Your task to perform on an android device: check storage Image 0: 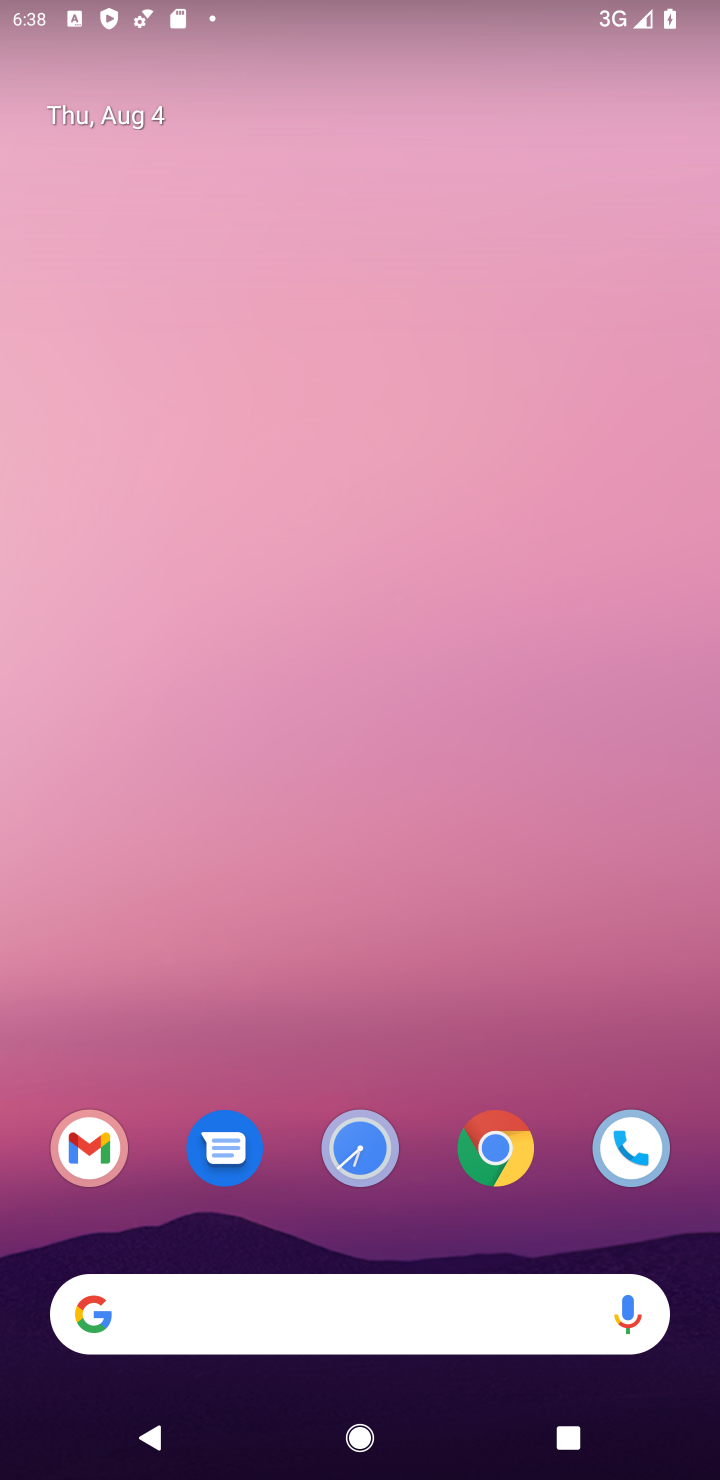
Step 0: drag from (573, 1229) to (538, 320)
Your task to perform on an android device: check storage Image 1: 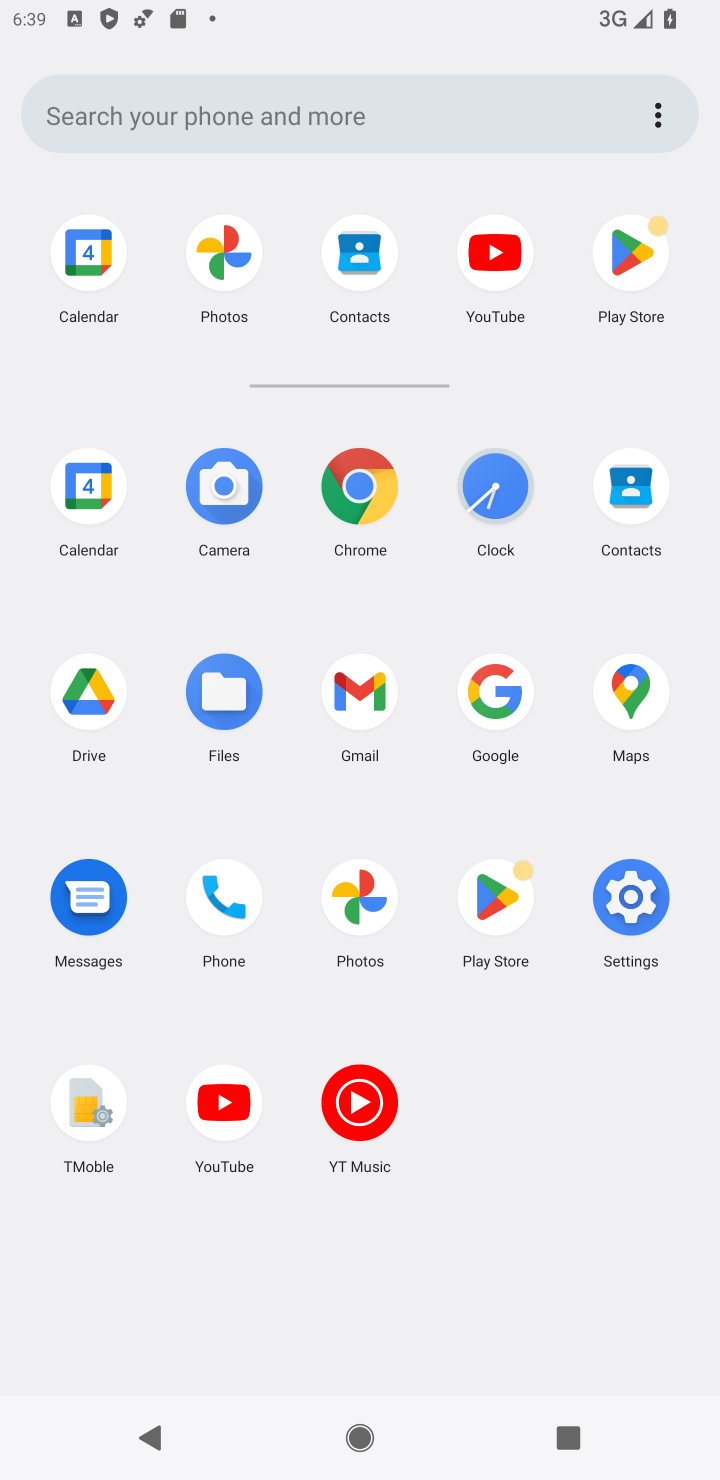
Step 1: click (630, 903)
Your task to perform on an android device: check storage Image 2: 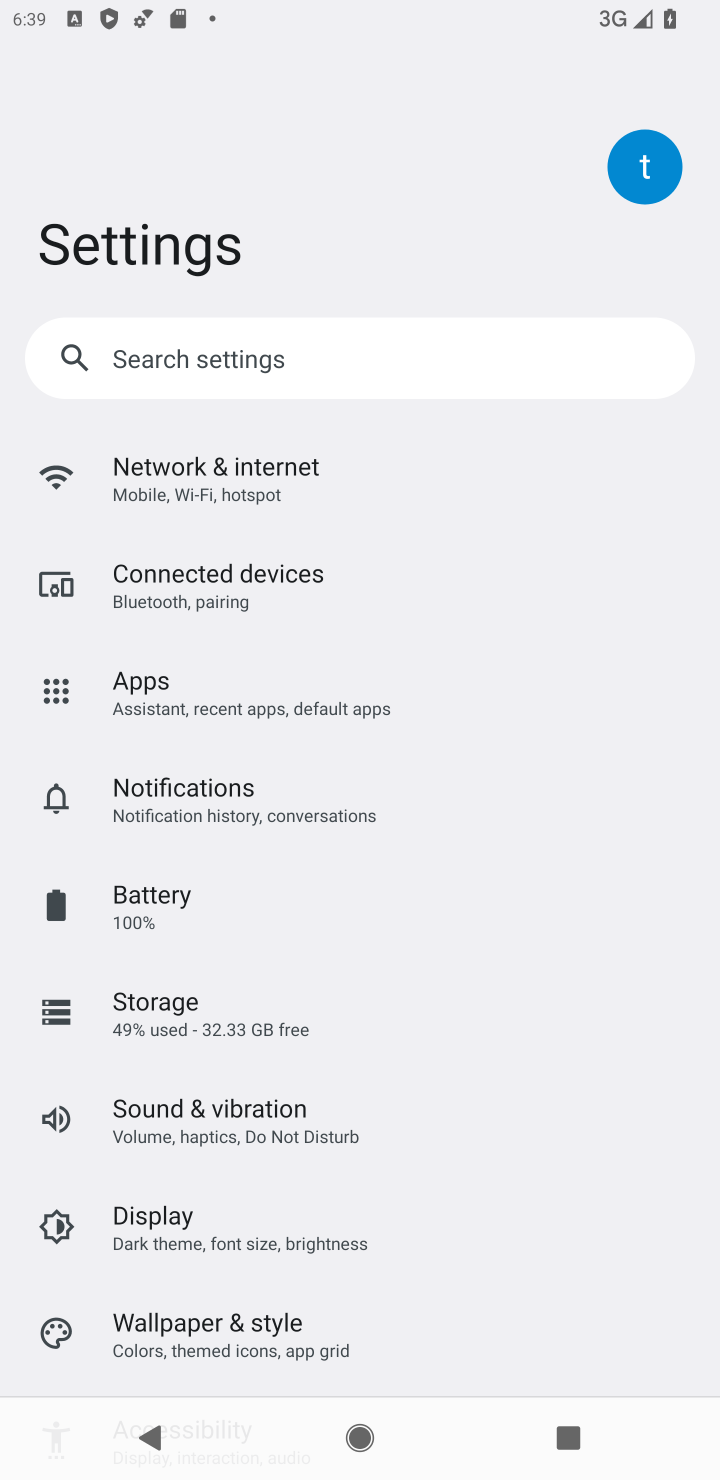
Step 2: click (120, 1013)
Your task to perform on an android device: check storage Image 3: 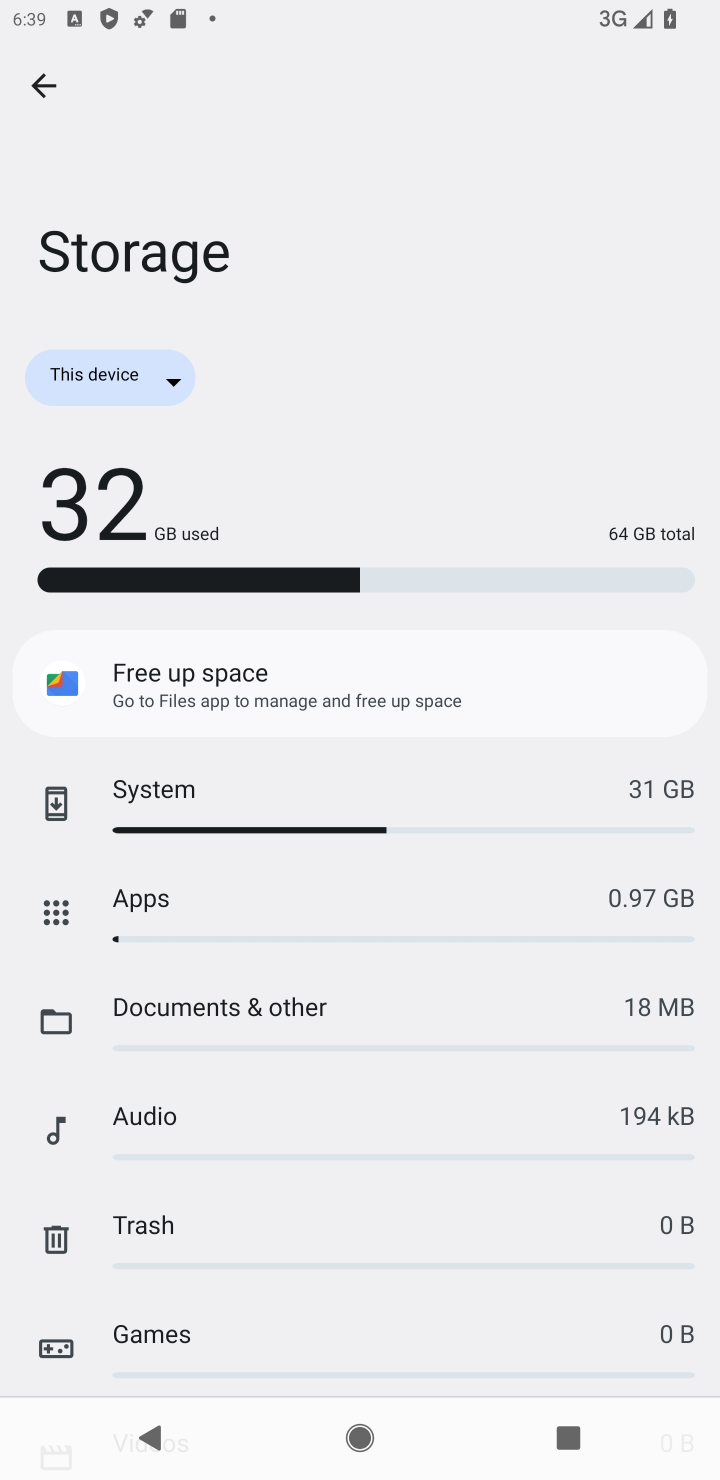
Step 3: task complete